Your task to perform on an android device: Search for sushi restaurants on Maps Image 0: 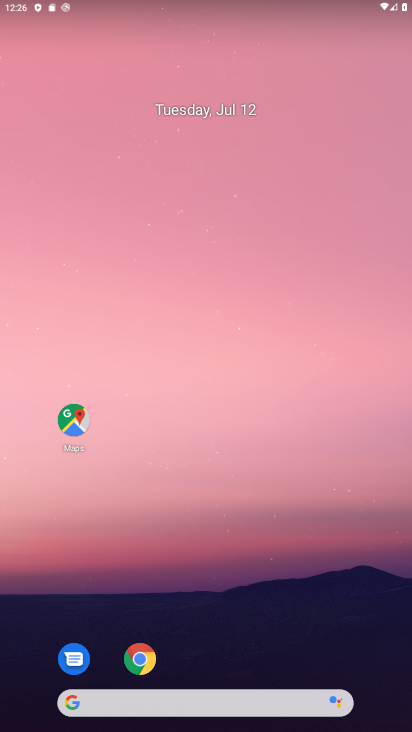
Step 0: click (1, 281)
Your task to perform on an android device: Search for sushi restaurants on Maps Image 1: 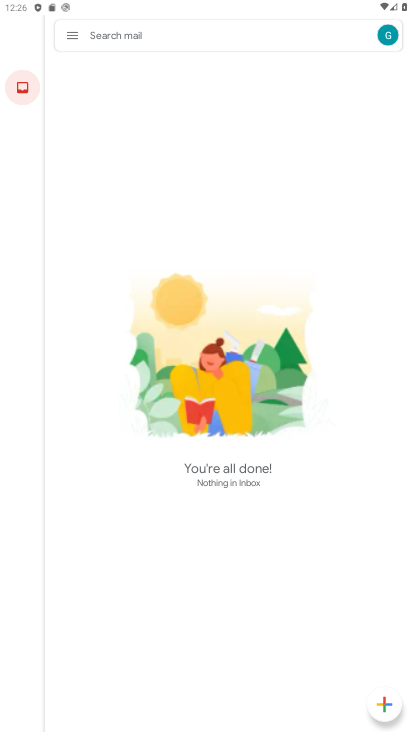
Step 1: press home button
Your task to perform on an android device: Search for sushi restaurants on Maps Image 2: 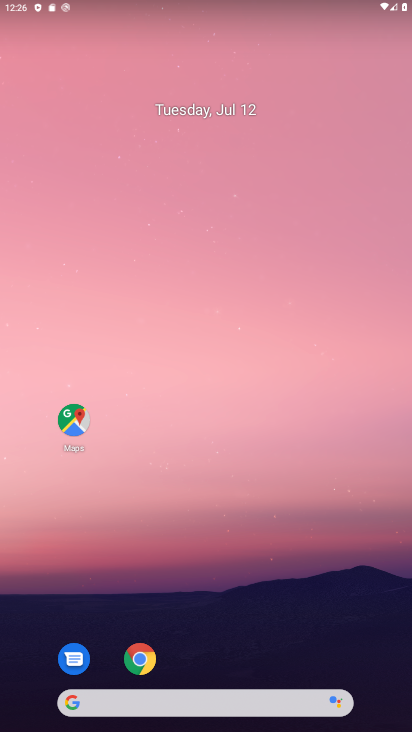
Step 2: drag from (2, 321) to (394, 359)
Your task to perform on an android device: Search for sushi restaurants on Maps Image 3: 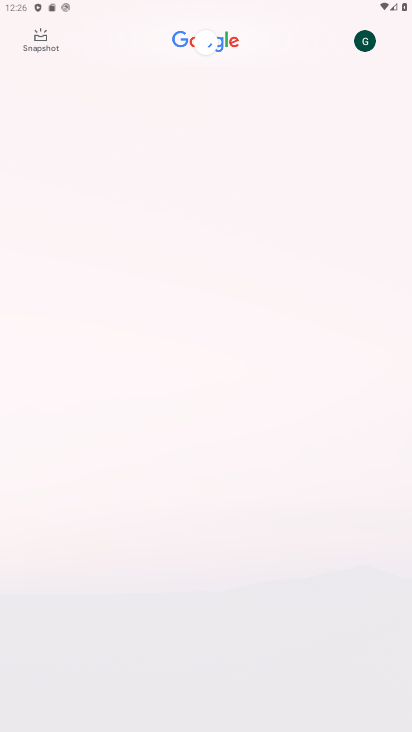
Step 3: press home button
Your task to perform on an android device: Search for sushi restaurants on Maps Image 4: 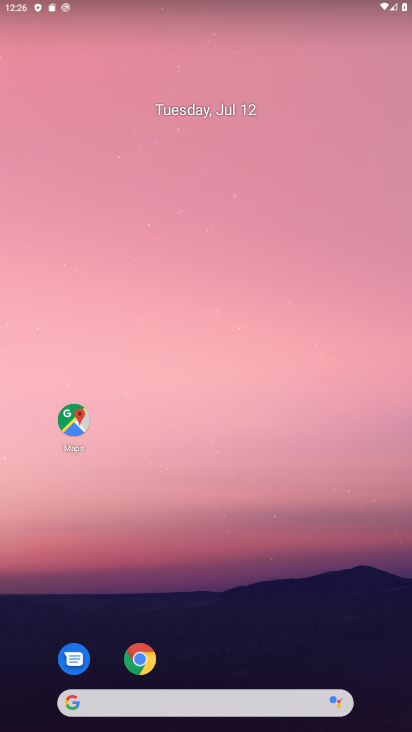
Step 4: drag from (214, 472) to (191, 97)
Your task to perform on an android device: Search for sushi restaurants on Maps Image 5: 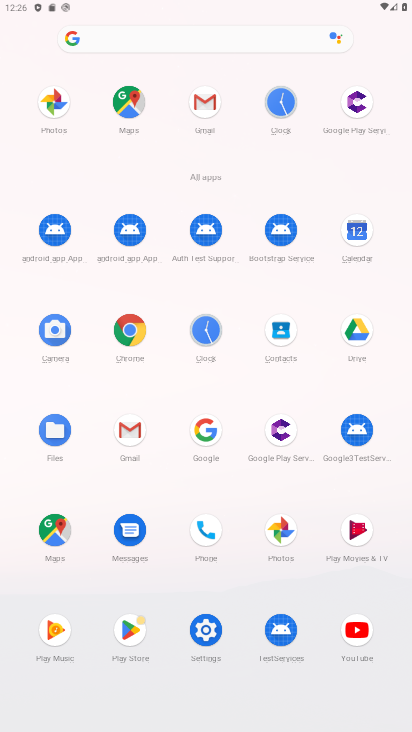
Step 5: click (52, 528)
Your task to perform on an android device: Search for sushi restaurants on Maps Image 6: 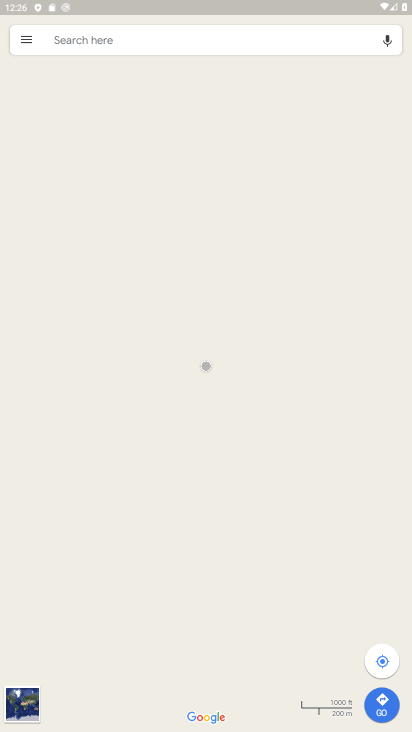
Step 6: click (165, 43)
Your task to perform on an android device: Search for sushi restaurants on Maps Image 7: 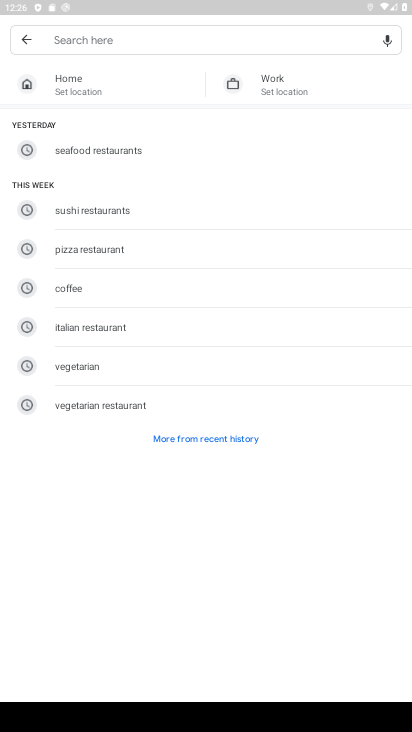
Step 7: type "sushi restaurants"
Your task to perform on an android device: Search for sushi restaurants on Maps Image 8: 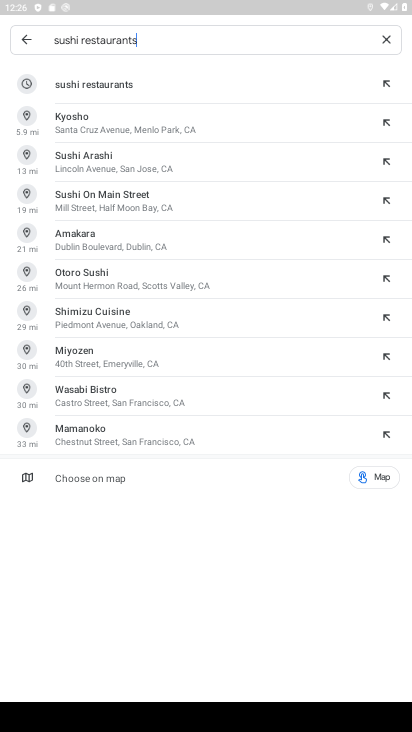
Step 8: click (89, 84)
Your task to perform on an android device: Search for sushi restaurants on Maps Image 9: 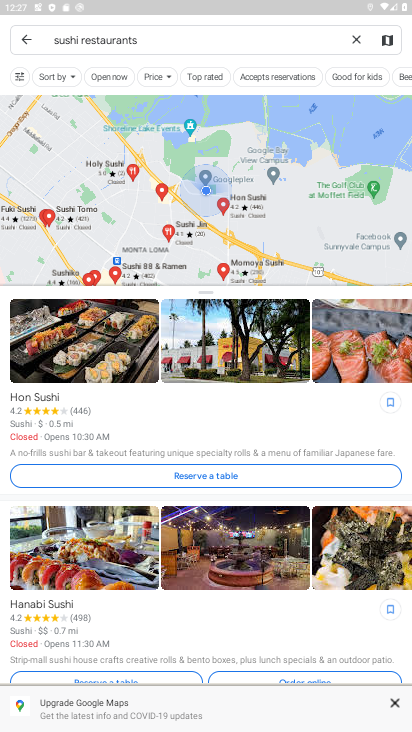
Step 9: task complete